Your task to perform on an android device: Open Google Maps and go to "Timeline" Image 0: 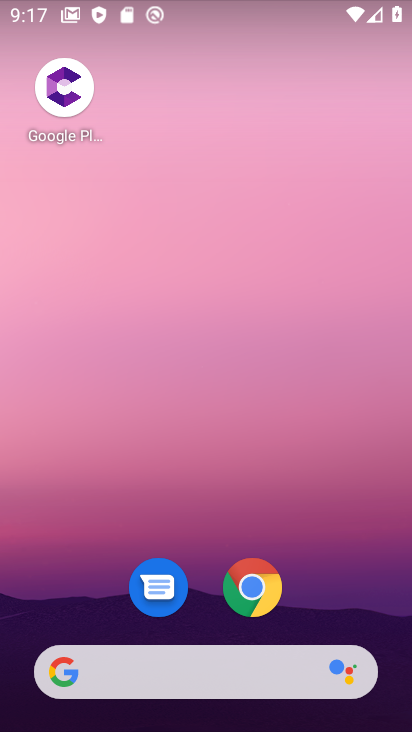
Step 0: drag from (228, 674) to (233, 114)
Your task to perform on an android device: Open Google Maps and go to "Timeline" Image 1: 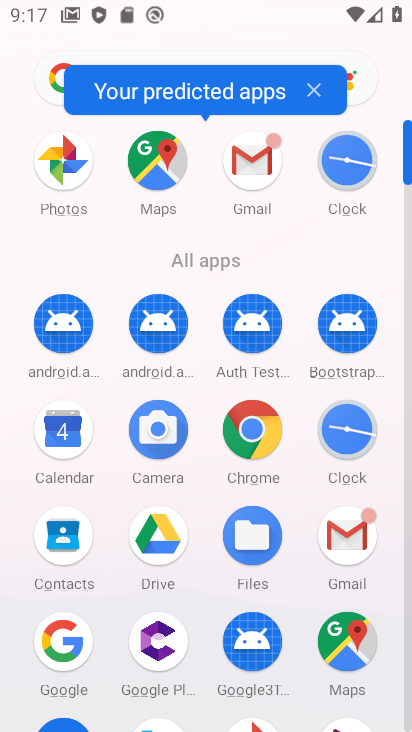
Step 1: click (168, 160)
Your task to perform on an android device: Open Google Maps and go to "Timeline" Image 2: 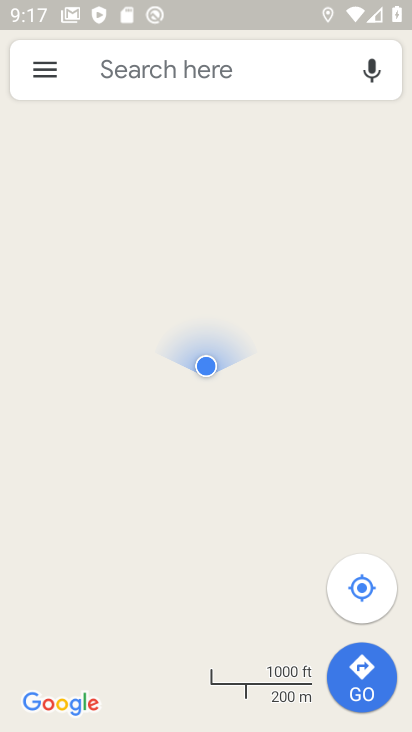
Step 2: click (37, 74)
Your task to perform on an android device: Open Google Maps and go to "Timeline" Image 3: 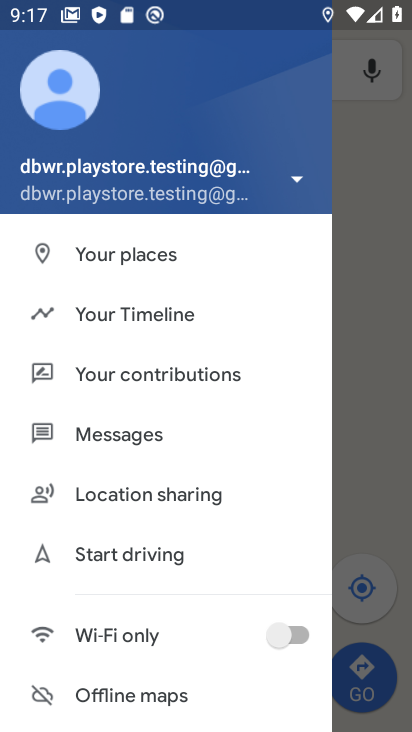
Step 3: click (160, 305)
Your task to perform on an android device: Open Google Maps and go to "Timeline" Image 4: 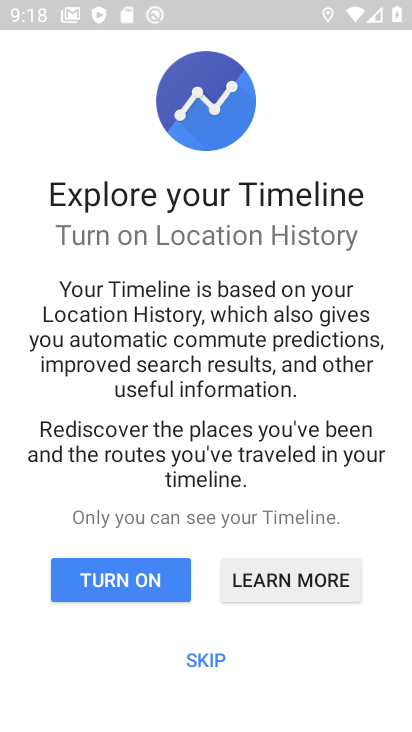
Step 4: click (197, 666)
Your task to perform on an android device: Open Google Maps and go to "Timeline" Image 5: 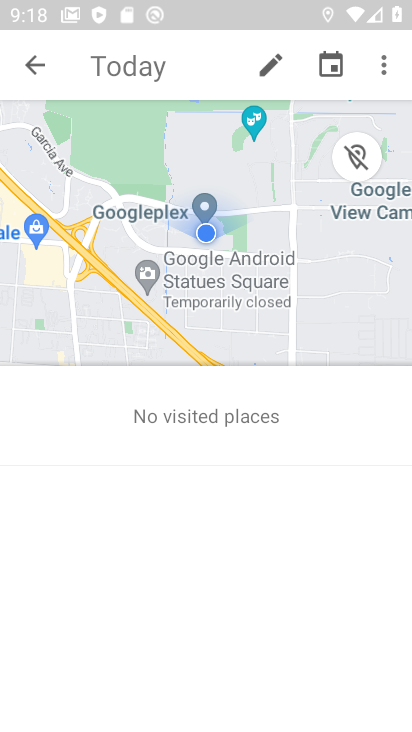
Step 5: task complete